Your task to perform on an android device: open a new tab in the chrome app Image 0: 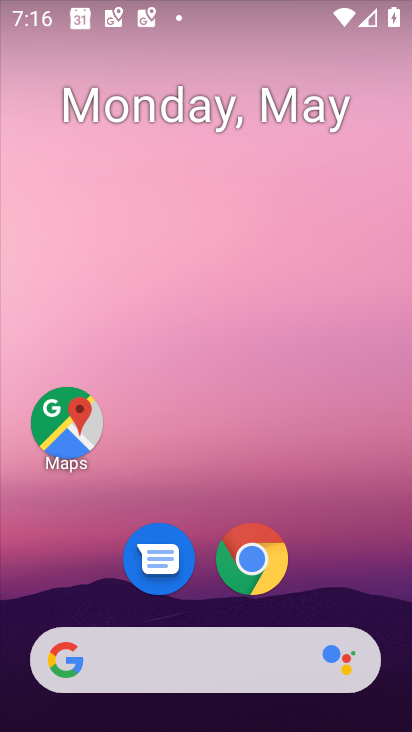
Step 0: drag from (403, 653) to (367, 86)
Your task to perform on an android device: open a new tab in the chrome app Image 1: 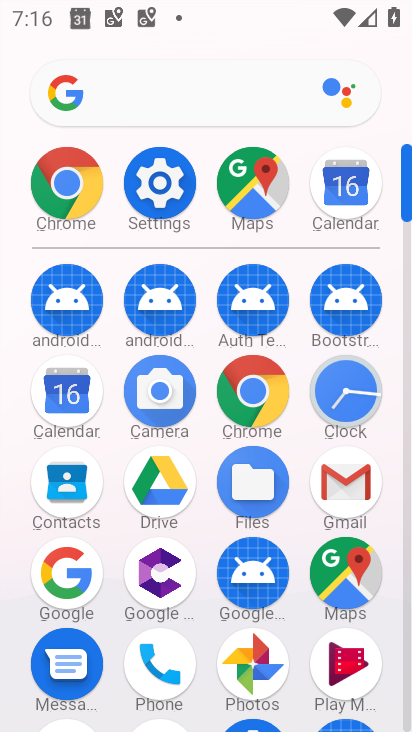
Step 1: click (253, 389)
Your task to perform on an android device: open a new tab in the chrome app Image 2: 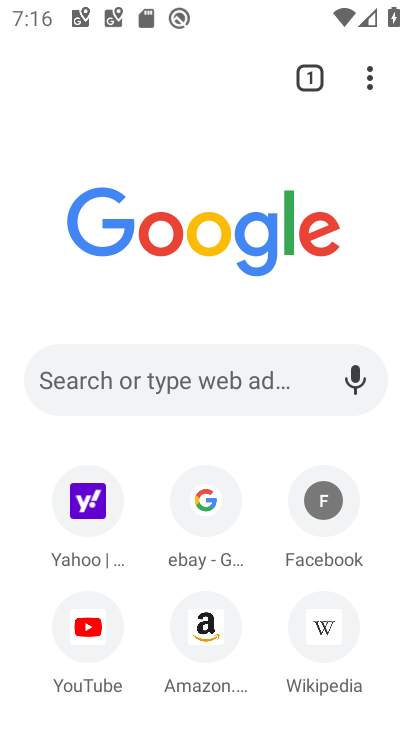
Step 2: click (368, 66)
Your task to perform on an android device: open a new tab in the chrome app Image 3: 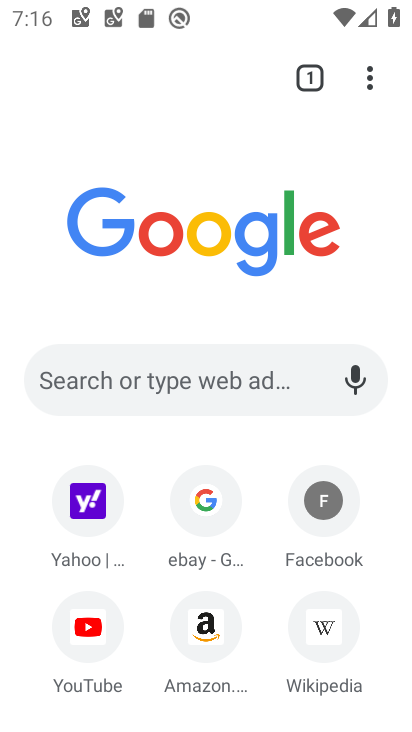
Step 3: click (376, 76)
Your task to perform on an android device: open a new tab in the chrome app Image 4: 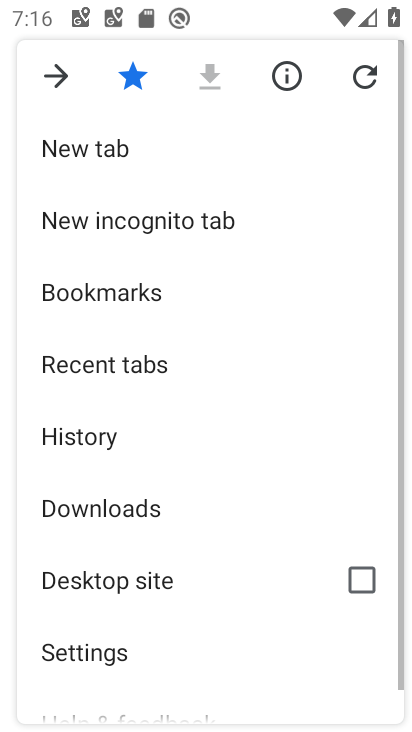
Step 4: click (166, 167)
Your task to perform on an android device: open a new tab in the chrome app Image 5: 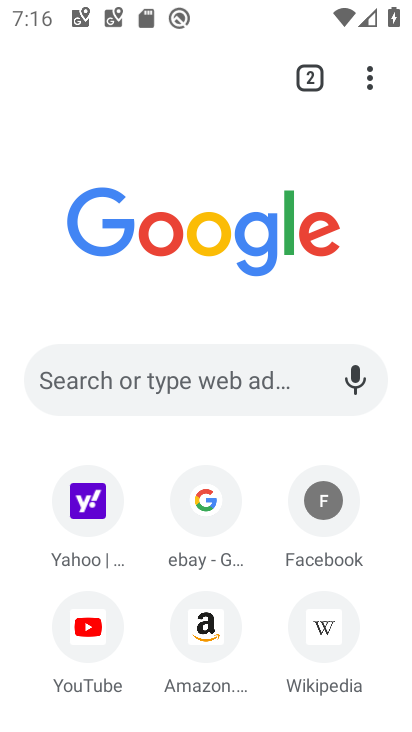
Step 5: task complete